Your task to perform on an android device: Go to privacy settings Image 0: 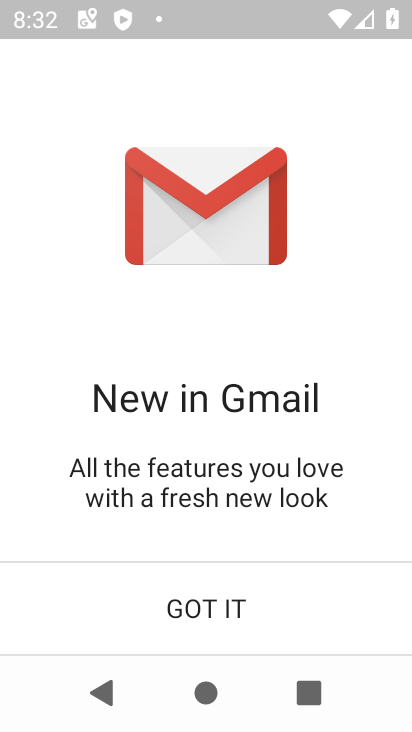
Step 0: press home button
Your task to perform on an android device: Go to privacy settings Image 1: 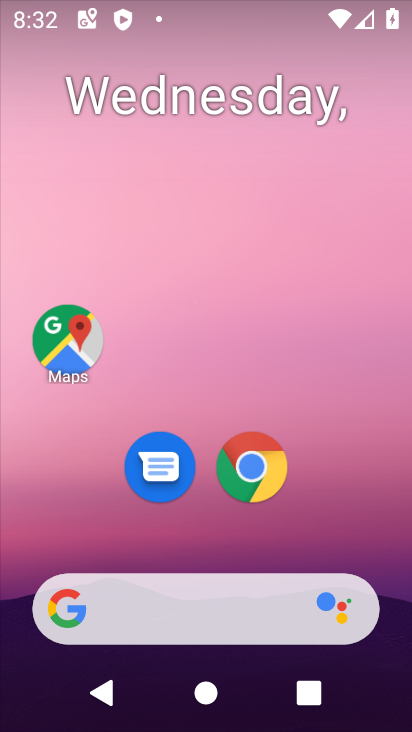
Step 1: drag from (278, 679) to (155, 61)
Your task to perform on an android device: Go to privacy settings Image 2: 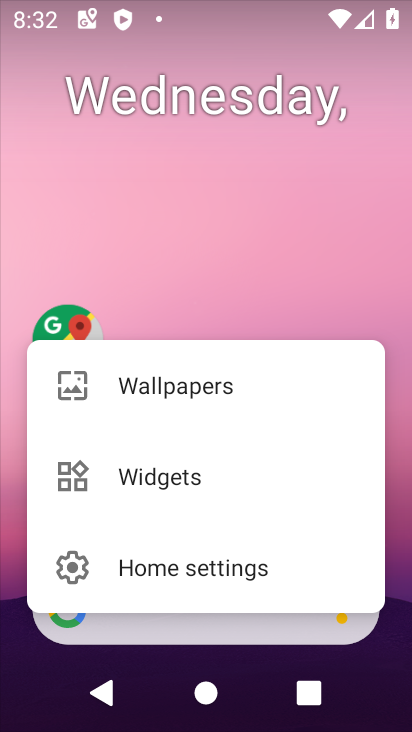
Step 2: click (289, 245)
Your task to perform on an android device: Go to privacy settings Image 3: 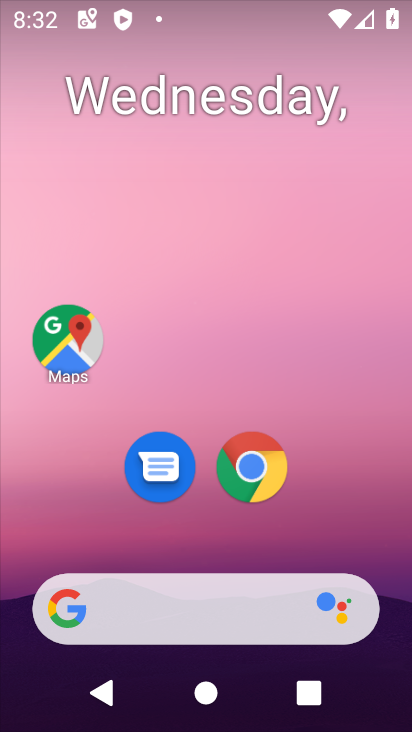
Step 3: drag from (248, 164) to (215, 79)
Your task to perform on an android device: Go to privacy settings Image 4: 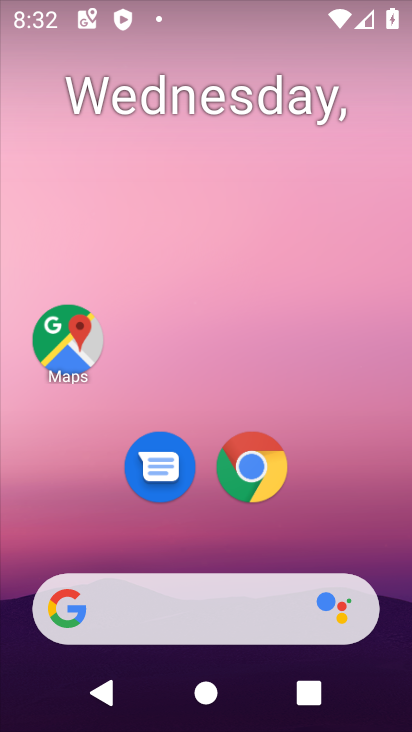
Step 4: drag from (346, 549) to (141, 101)
Your task to perform on an android device: Go to privacy settings Image 5: 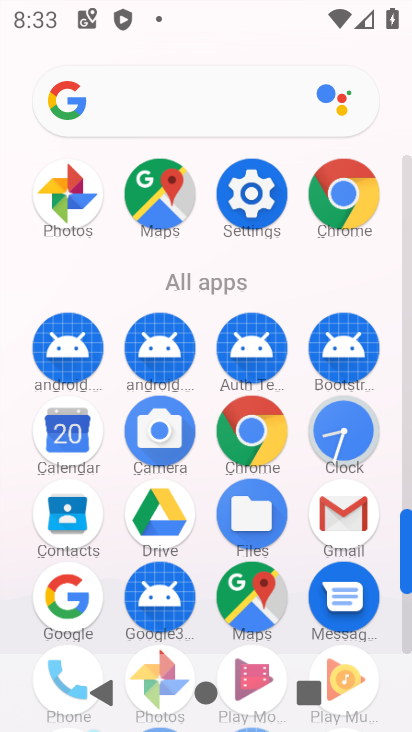
Step 5: click (259, 193)
Your task to perform on an android device: Go to privacy settings Image 6: 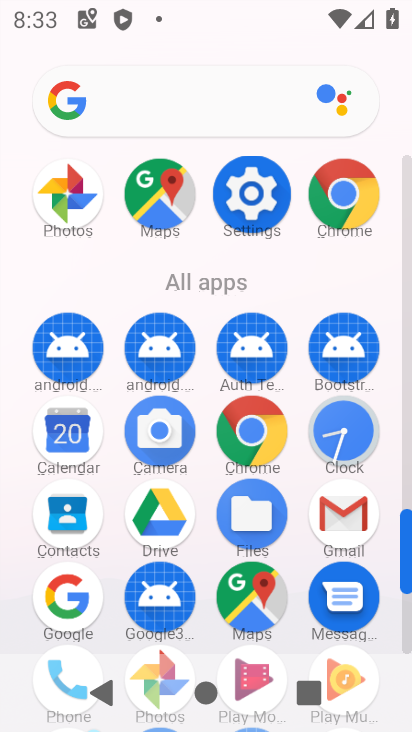
Step 6: click (259, 194)
Your task to perform on an android device: Go to privacy settings Image 7: 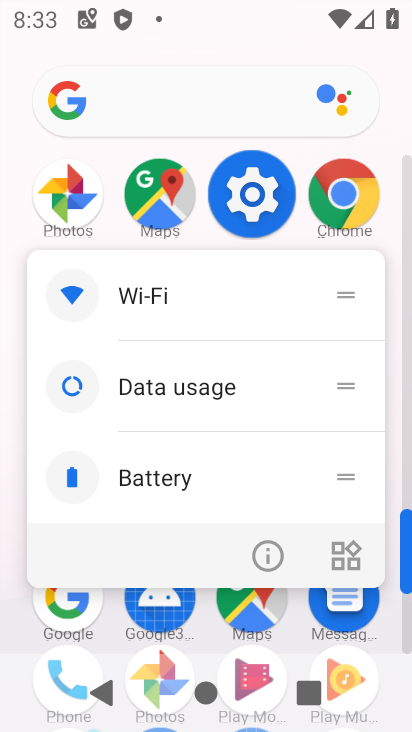
Step 7: click (260, 193)
Your task to perform on an android device: Go to privacy settings Image 8: 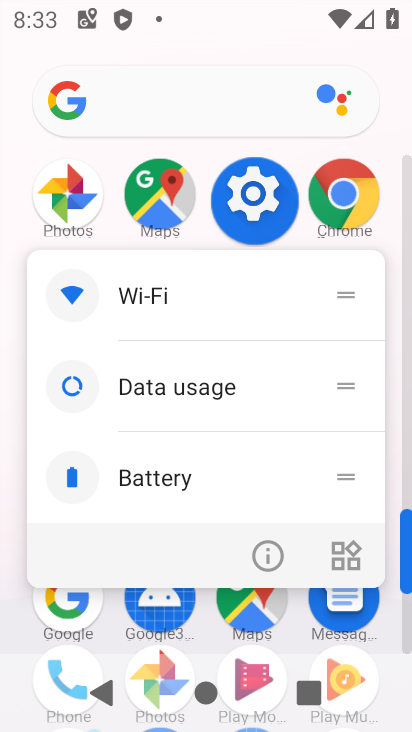
Step 8: click (264, 202)
Your task to perform on an android device: Go to privacy settings Image 9: 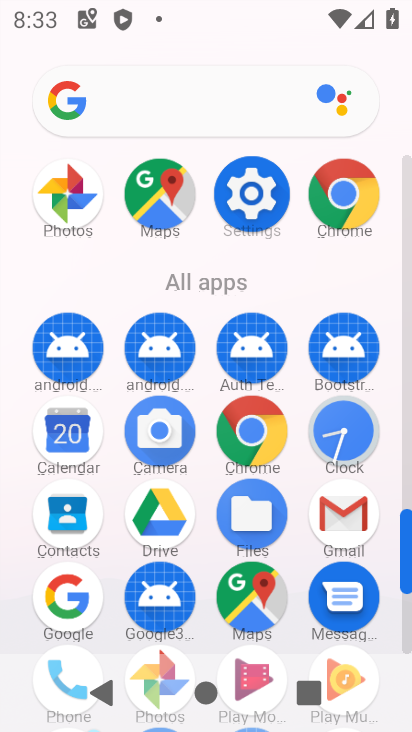
Step 9: click (267, 204)
Your task to perform on an android device: Go to privacy settings Image 10: 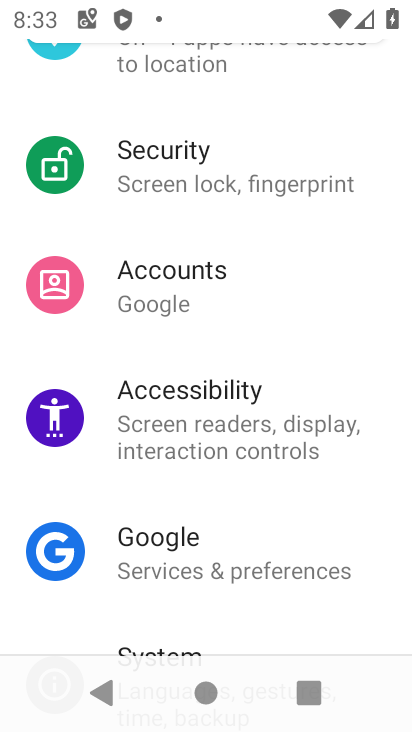
Step 10: drag from (191, 281) to (188, 168)
Your task to perform on an android device: Go to privacy settings Image 11: 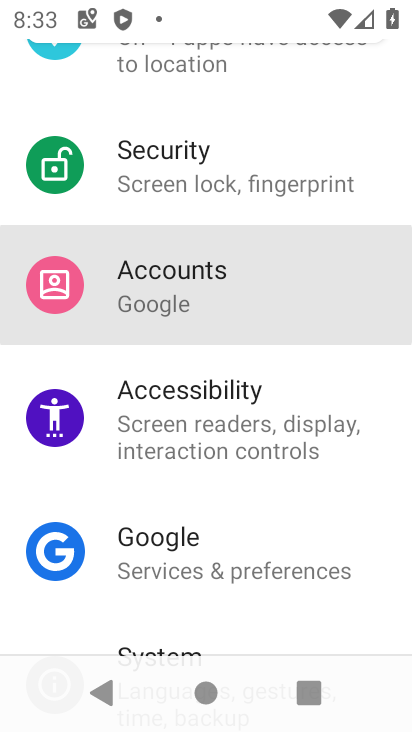
Step 11: drag from (176, 413) to (161, 229)
Your task to perform on an android device: Go to privacy settings Image 12: 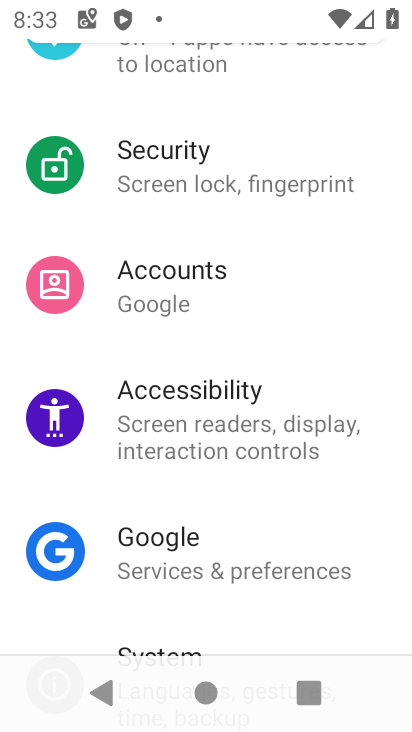
Step 12: drag from (137, 371) to (134, 227)
Your task to perform on an android device: Go to privacy settings Image 13: 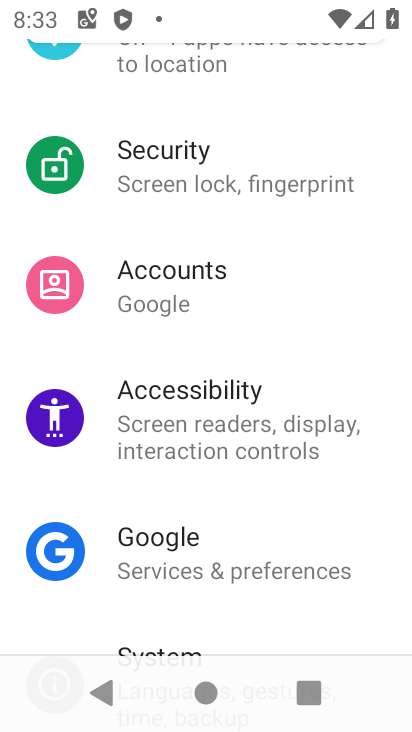
Step 13: drag from (196, 218) to (233, 511)
Your task to perform on an android device: Go to privacy settings Image 14: 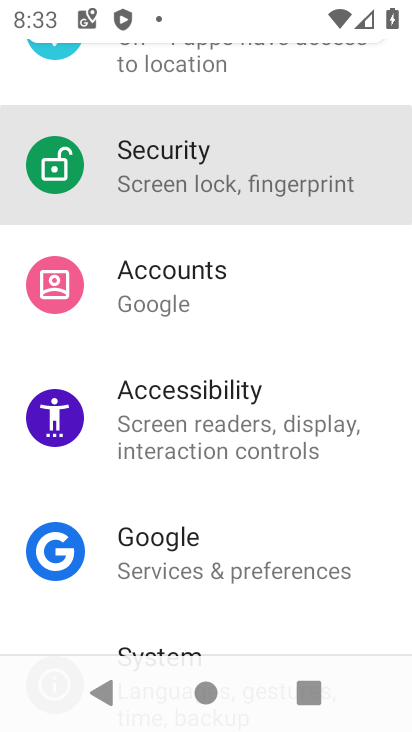
Step 14: drag from (208, 280) to (210, 464)
Your task to perform on an android device: Go to privacy settings Image 15: 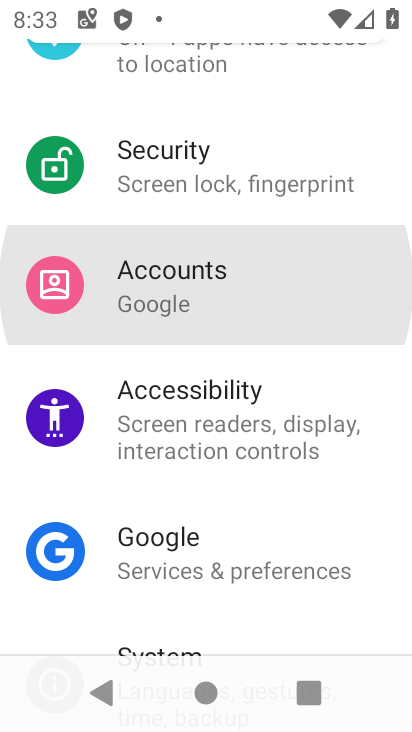
Step 15: drag from (210, 450) to (221, 488)
Your task to perform on an android device: Go to privacy settings Image 16: 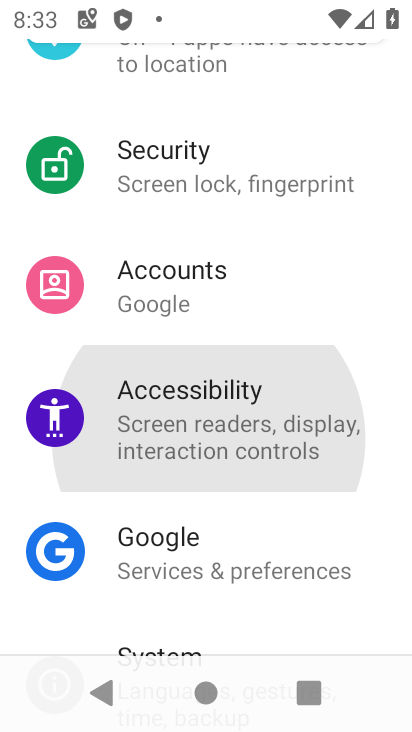
Step 16: click (202, 435)
Your task to perform on an android device: Go to privacy settings Image 17: 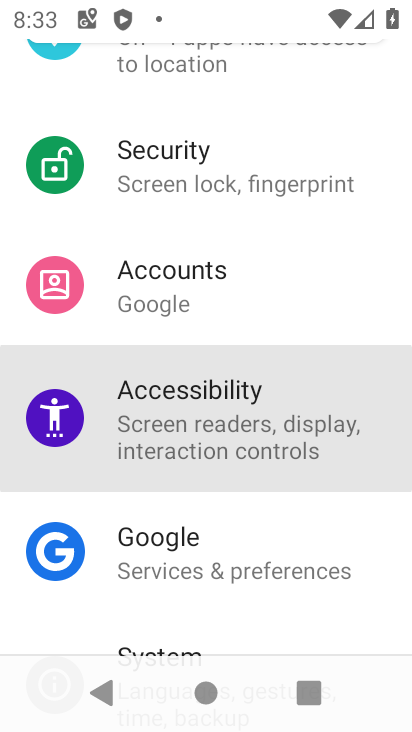
Step 17: click (169, 430)
Your task to perform on an android device: Go to privacy settings Image 18: 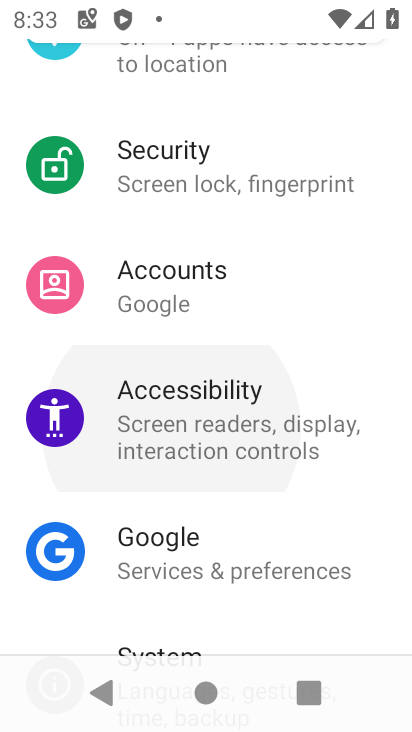
Step 18: drag from (178, 408) to (195, 534)
Your task to perform on an android device: Go to privacy settings Image 19: 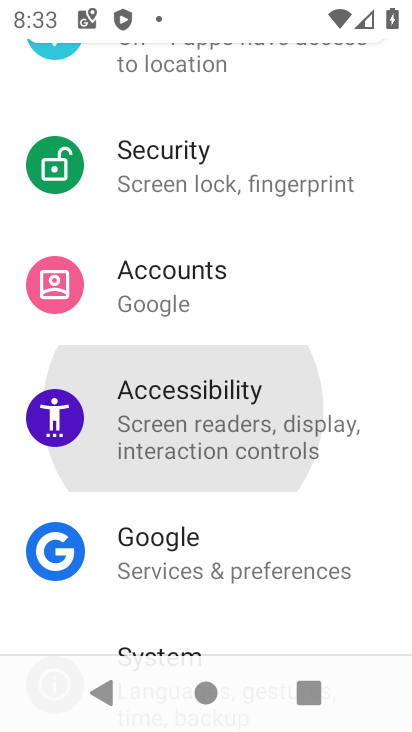
Step 19: drag from (196, 328) to (218, 572)
Your task to perform on an android device: Go to privacy settings Image 20: 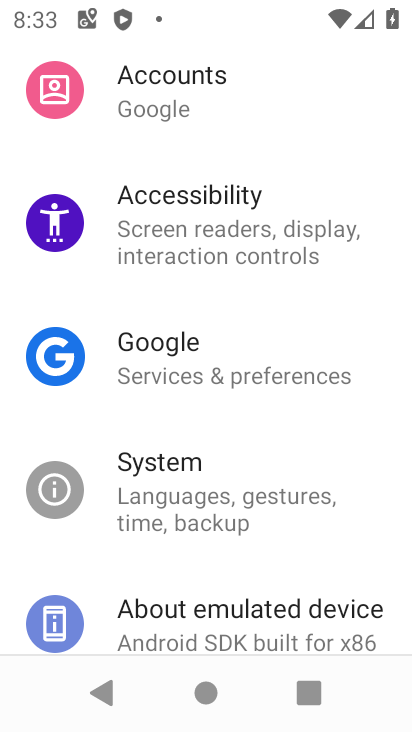
Step 20: drag from (146, 291) to (221, 623)
Your task to perform on an android device: Go to privacy settings Image 21: 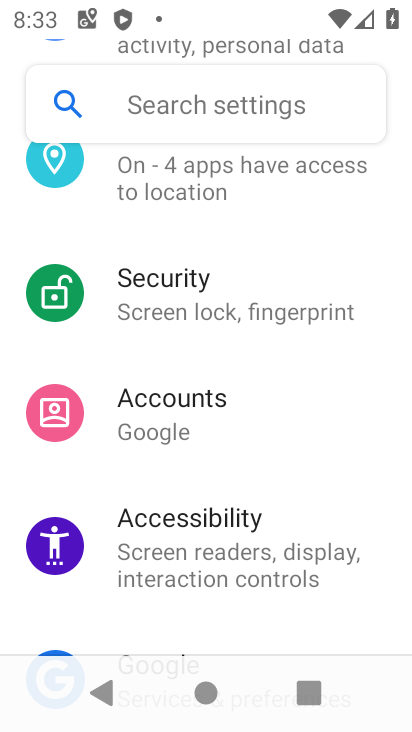
Step 21: drag from (225, 371) to (166, 548)
Your task to perform on an android device: Go to privacy settings Image 22: 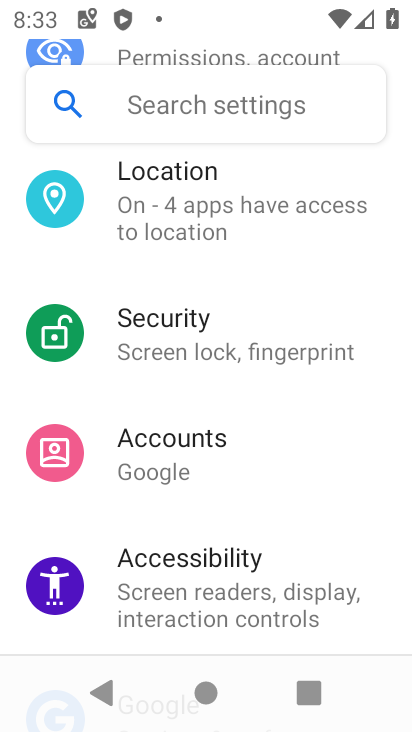
Step 22: drag from (158, 492) to (171, 168)
Your task to perform on an android device: Go to privacy settings Image 23: 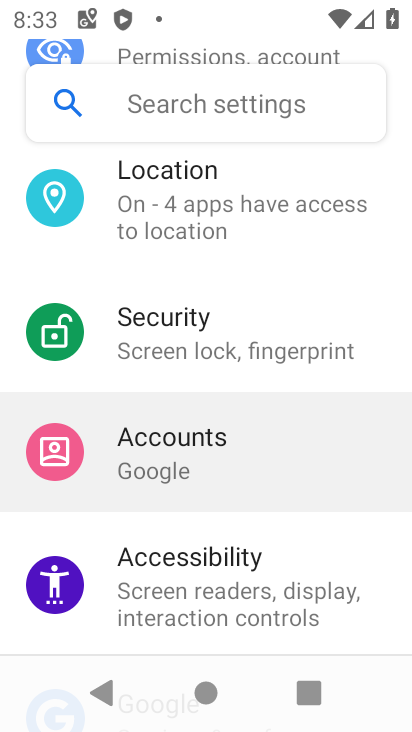
Step 23: drag from (279, 400) to (159, 304)
Your task to perform on an android device: Go to privacy settings Image 24: 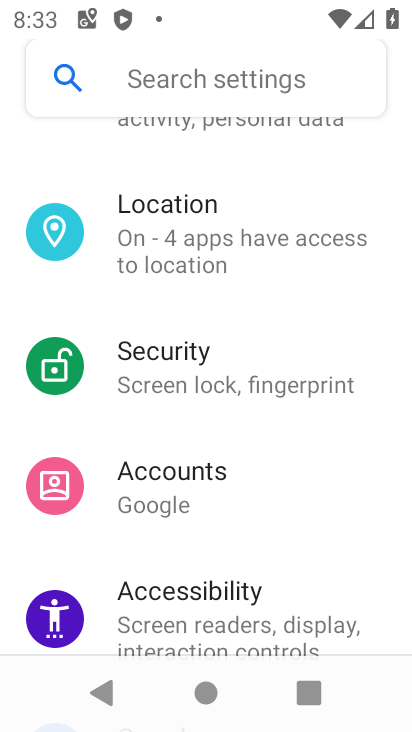
Step 24: drag from (226, 608) to (215, 238)
Your task to perform on an android device: Go to privacy settings Image 25: 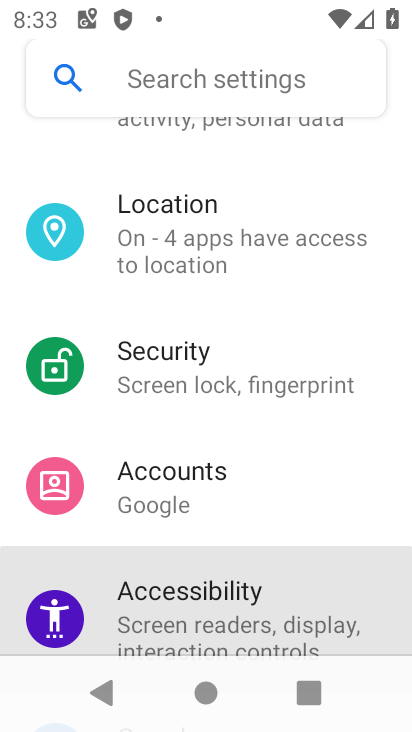
Step 25: drag from (247, 527) to (263, 308)
Your task to perform on an android device: Go to privacy settings Image 26: 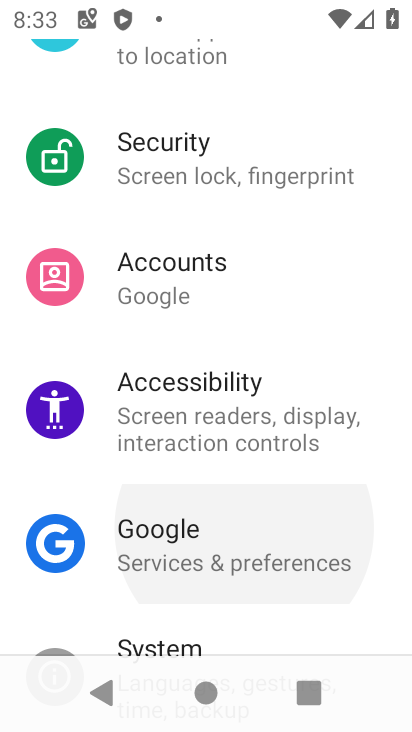
Step 26: drag from (255, 468) to (255, 351)
Your task to perform on an android device: Go to privacy settings Image 27: 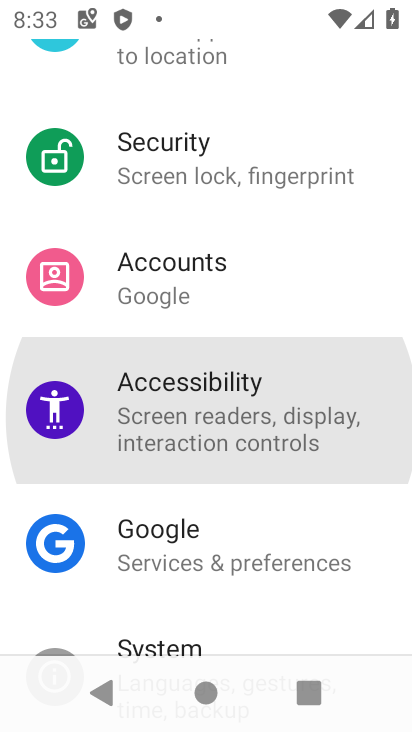
Step 27: drag from (181, 353) to (179, 212)
Your task to perform on an android device: Go to privacy settings Image 28: 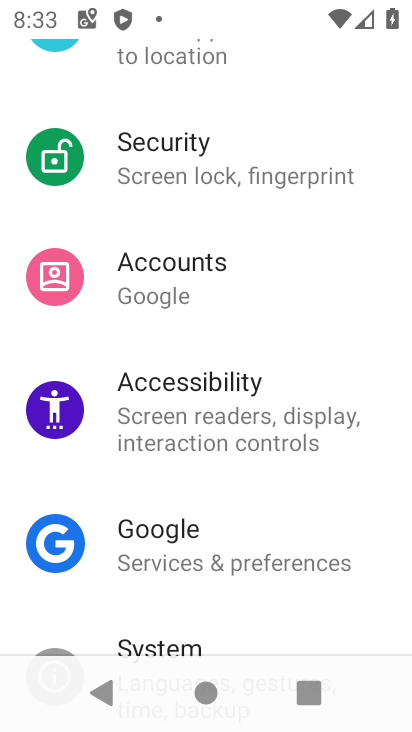
Step 28: drag from (198, 467) to (185, 349)
Your task to perform on an android device: Go to privacy settings Image 29: 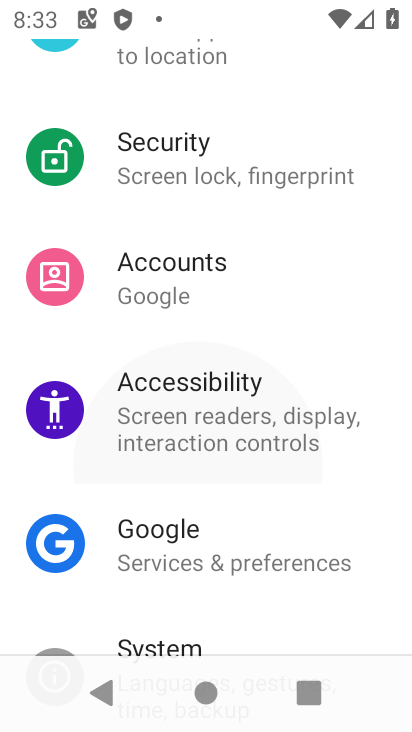
Step 29: drag from (159, 500) to (213, 250)
Your task to perform on an android device: Go to privacy settings Image 30: 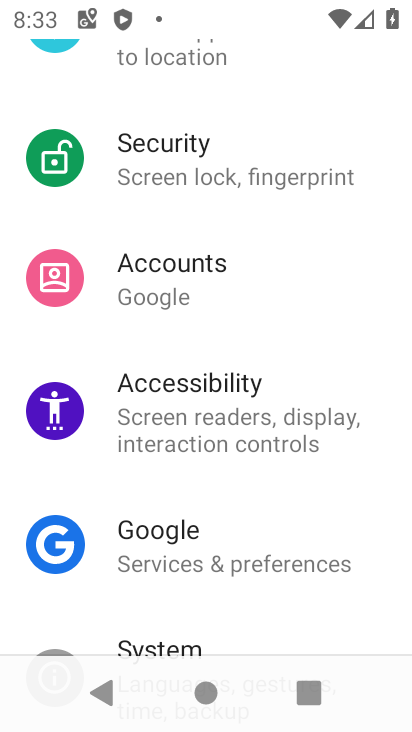
Step 30: drag from (270, 521) to (246, 226)
Your task to perform on an android device: Go to privacy settings Image 31: 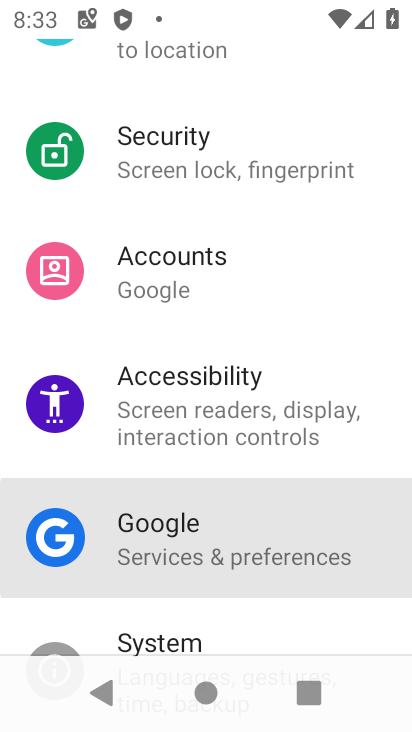
Step 31: drag from (203, 256) to (170, 235)
Your task to perform on an android device: Go to privacy settings Image 32: 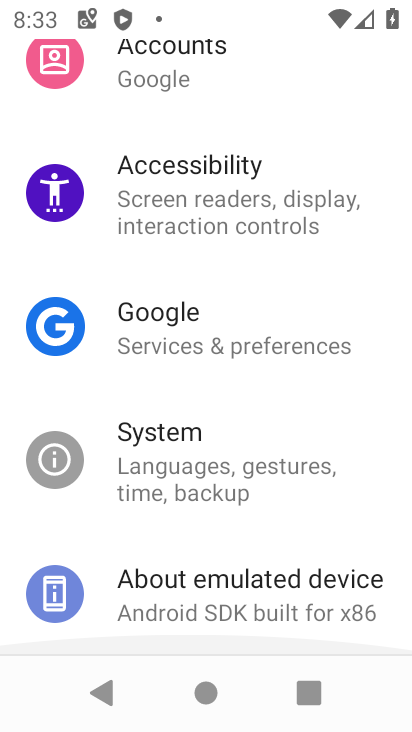
Step 32: drag from (256, 343) to (249, 198)
Your task to perform on an android device: Go to privacy settings Image 33: 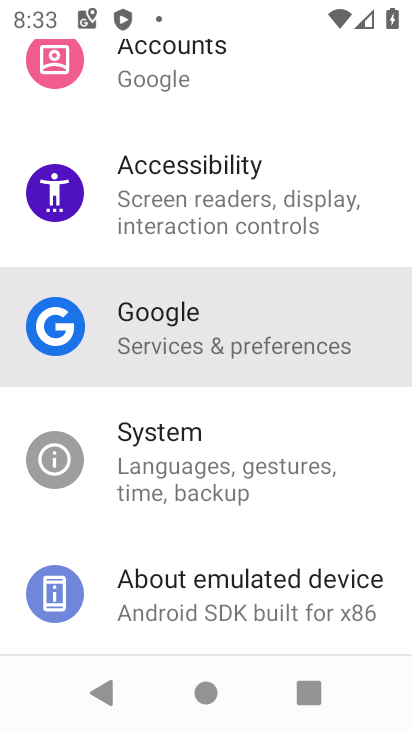
Step 33: drag from (242, 436) to (234, 332)
Your task to perform on an android device: Go to privacy settings Image 34: 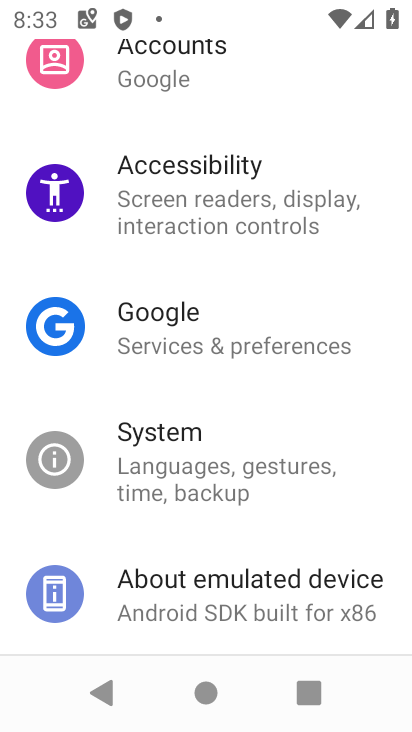
Step 34: drag from (195, 392) to (205, 649)
Your task to perform on an android device: Go to privacy settings Image 35: 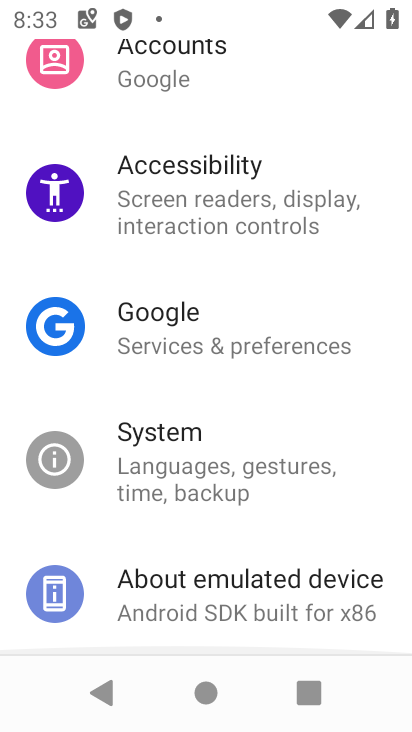
Step 35: drag from (240, 615) to (243, 557)
Your task to perform on an android device: Go to privacy settings Image 36: 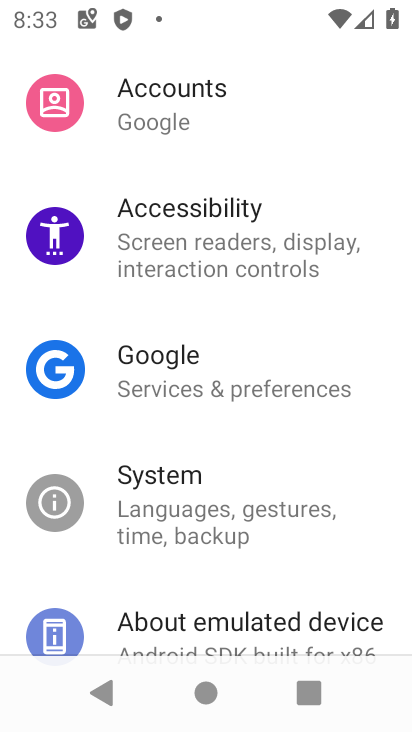
Step 36: drag from (240, 472) to (257, 587)
Your task to perform on an android device: Go to privacy settings Image 37: 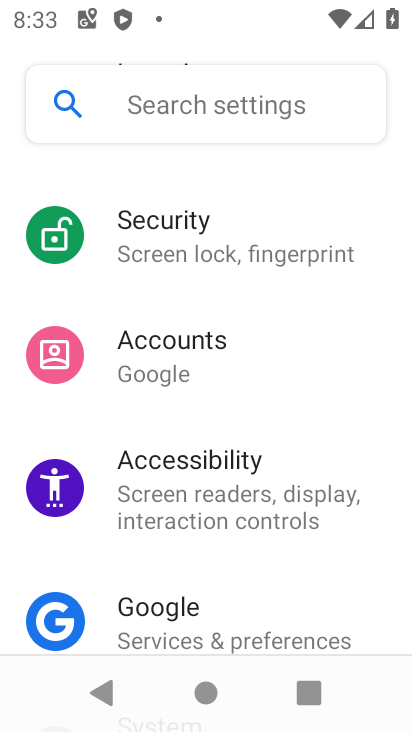
Step 37: drag from (258, 647) to (257, 708)
Your task to perform on an android device: Go to privacy settings Image 38: 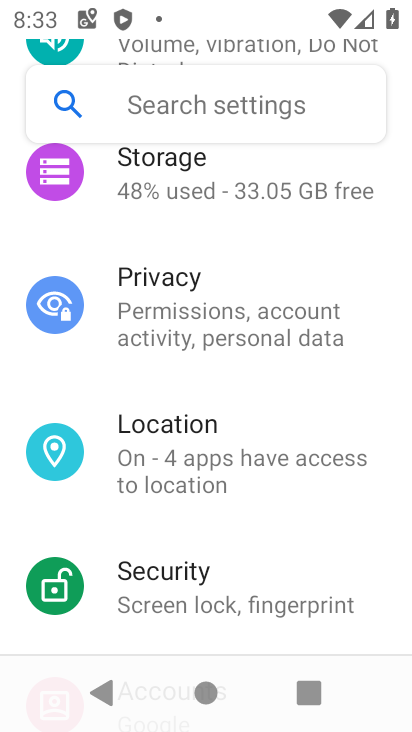
Step 38: click (181, 309)
Your task to perform on an android device: Go to privacy settings Image 39: 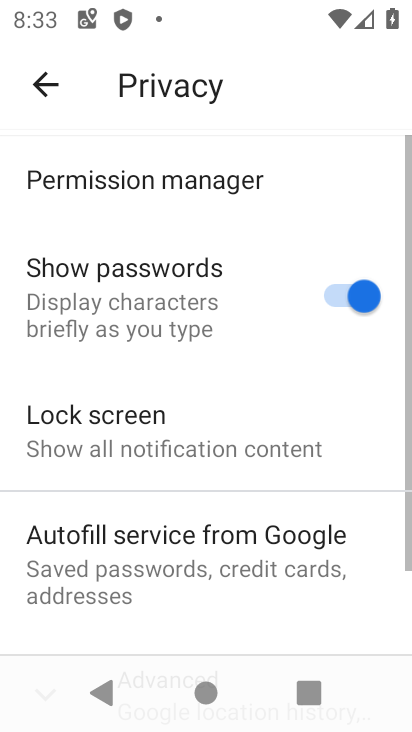
Step 39: click (189, 302)
Your task to perform on an android device: Go to privacy settings Image 40: 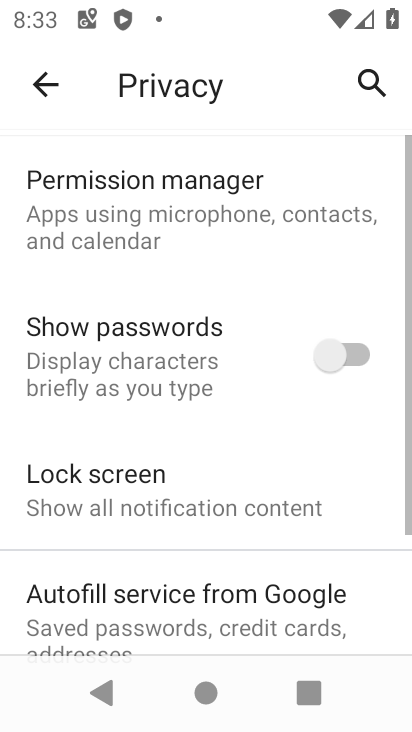
Step 40: task complete